Your task to perform on an android device: Go to display settings Image 0: 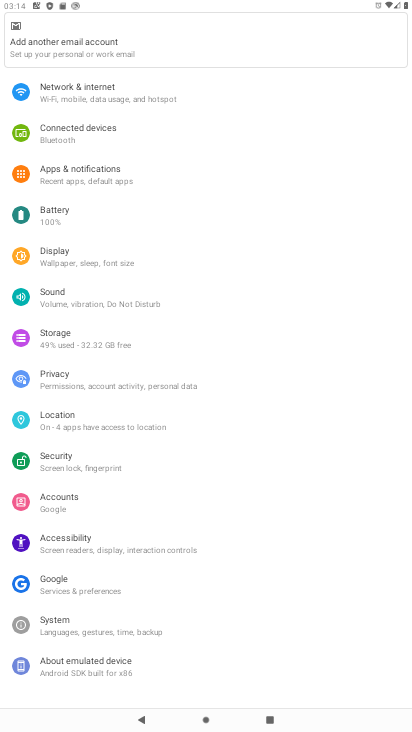
Step 0: click (55, 248)
Your task to perform on an android device: Go to display settings Image 1: 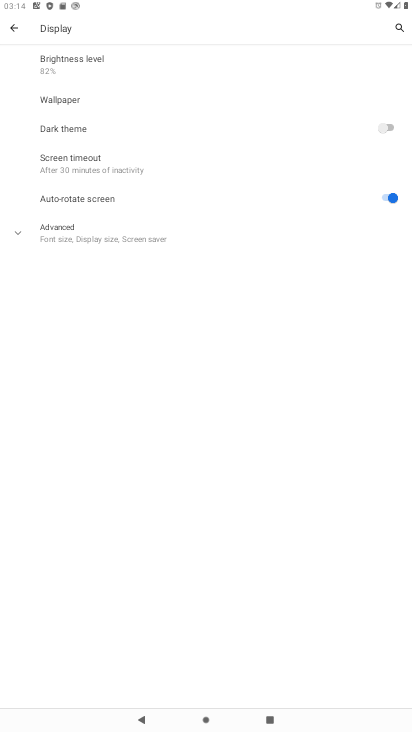
Step 1: click (11, 225)
Your task to perform on an android device: Go to display settings Image 2: 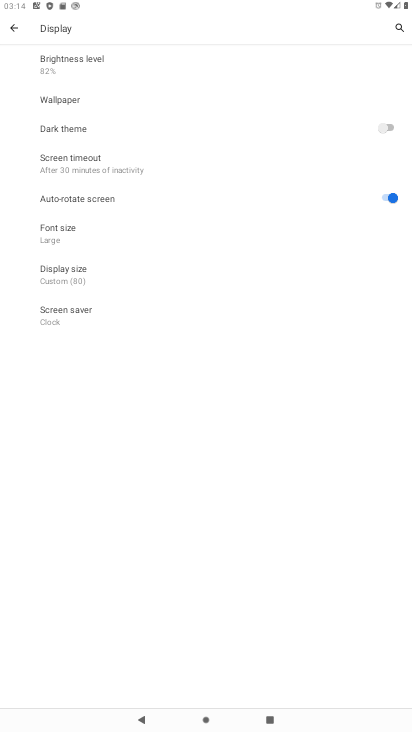
Step 2: task complete